Your task to perform on an android device: uninstall "Google Photos" Image 0: 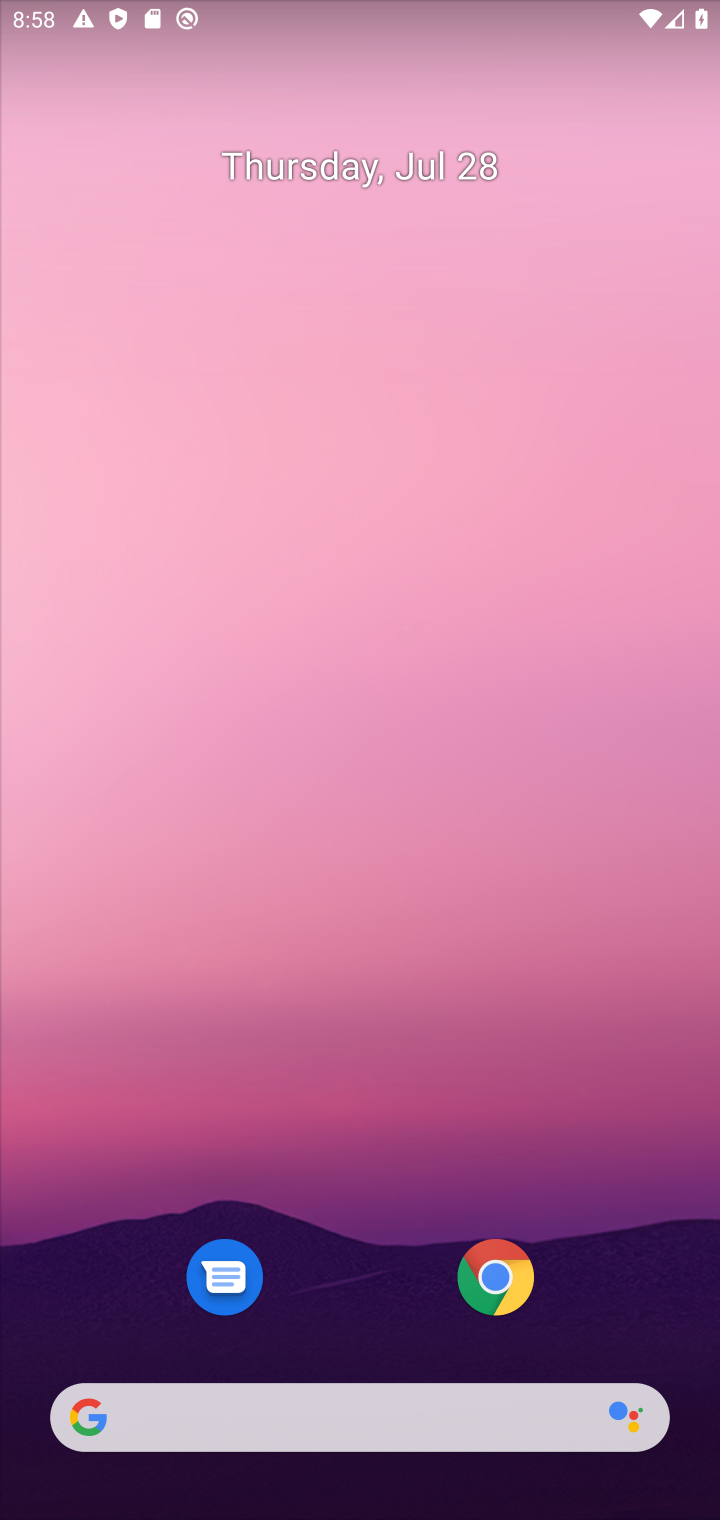
Step 0: drag from (357, 1488) to (349, 656)
Your task to perform on an android device: uninstall "Google Photos" Image 1: 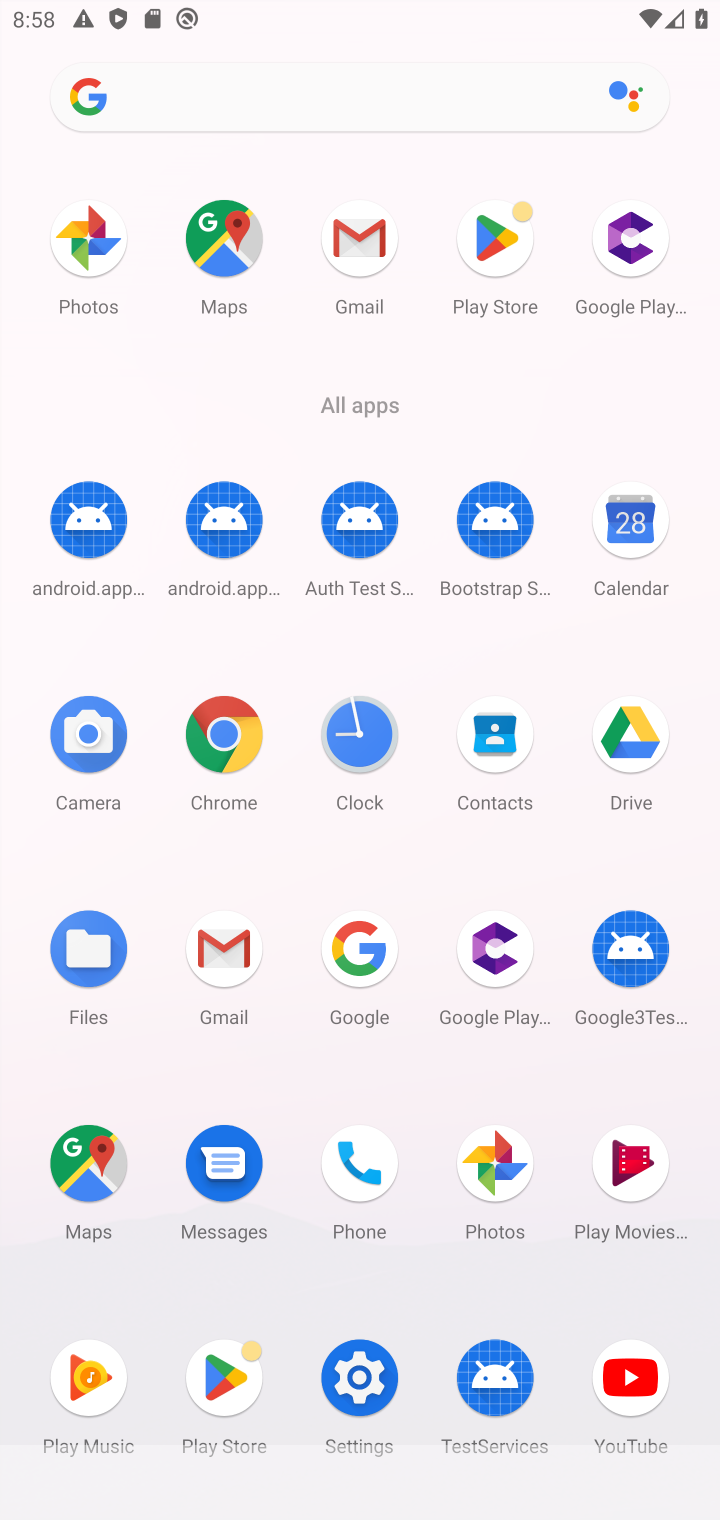
Step 1: click (225, 1387)
Your task to perform on an android device: uninstall "Google Photos" Image 2: 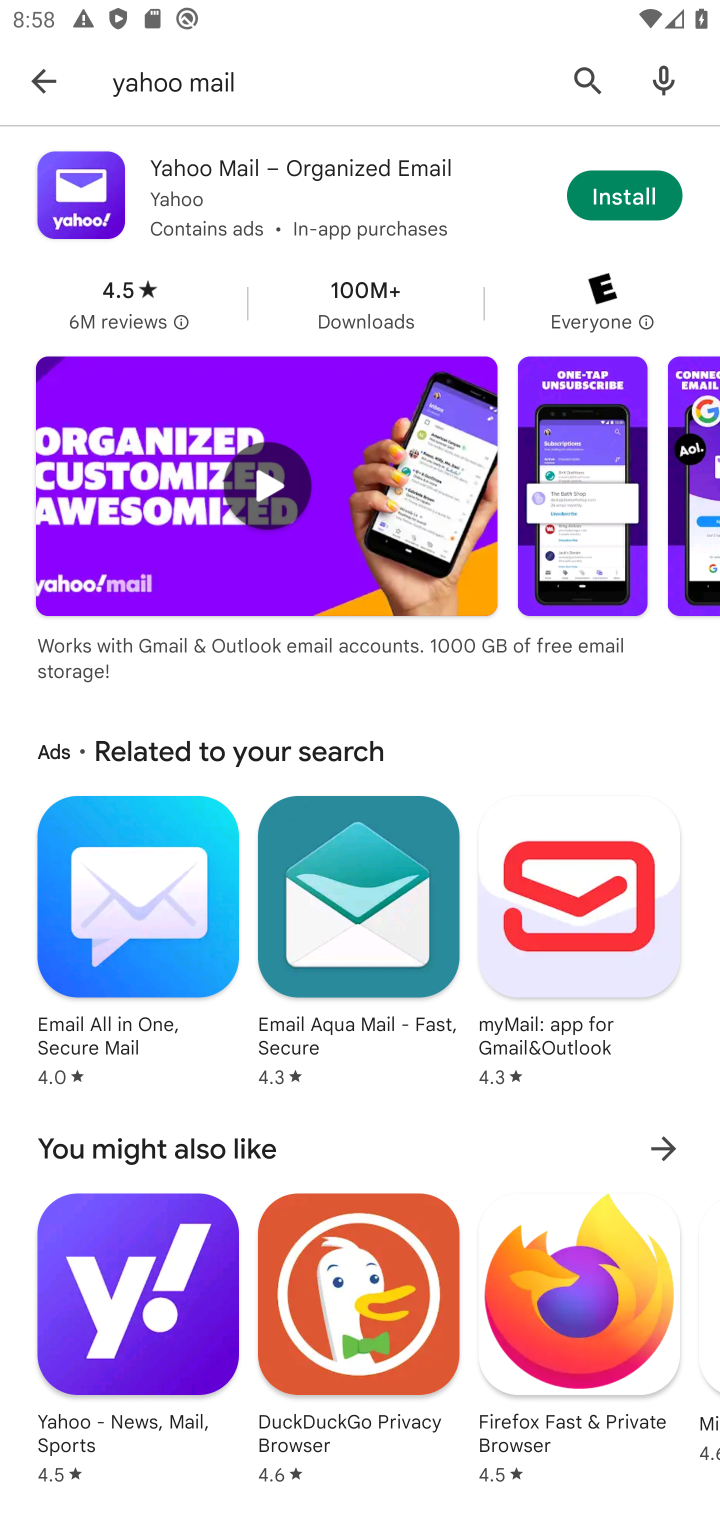
Step 2: click (572, 73)
Your task to perform on an android device: uninstall "Google Photos" Image 3: 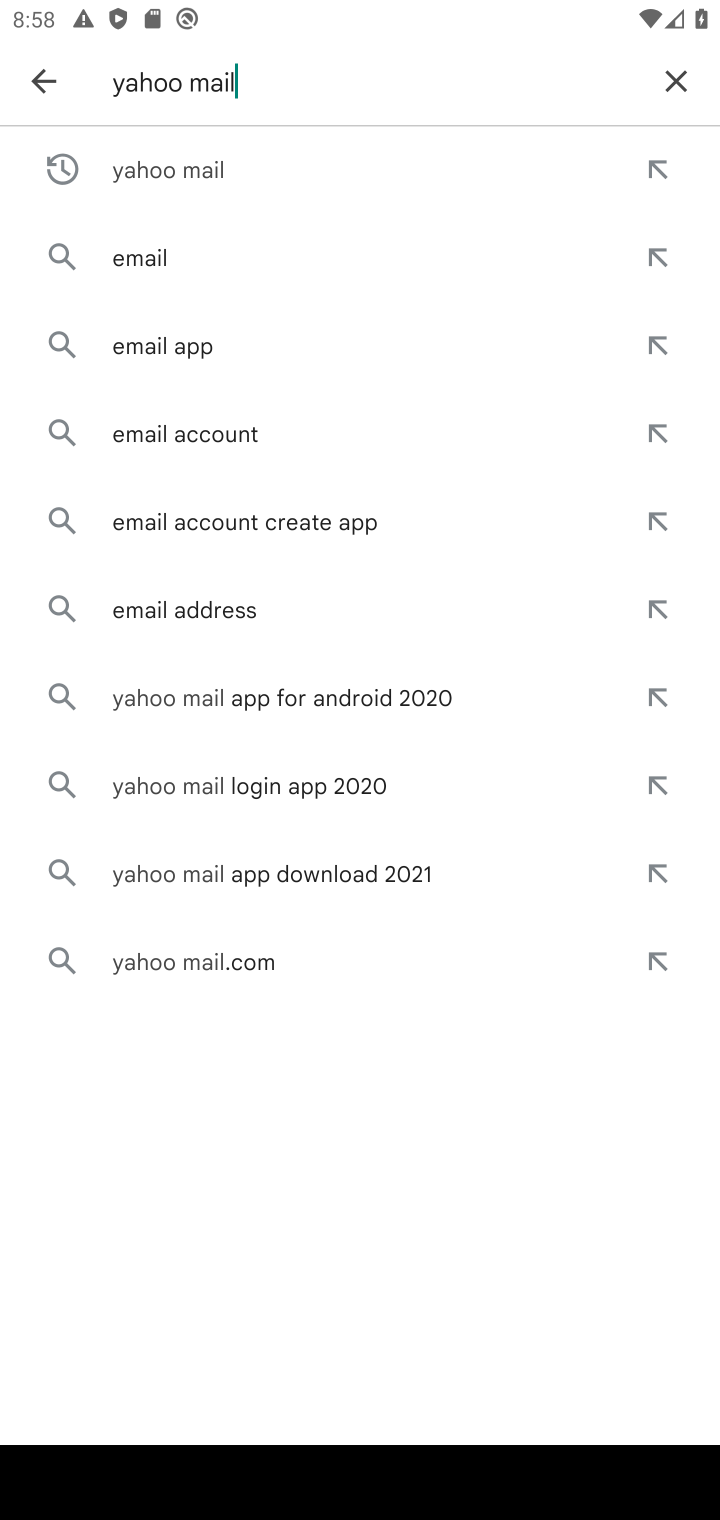
Step 3: click (674, 81)
Your task to perform on an android device: uninstall "Google Photos" Image 4: 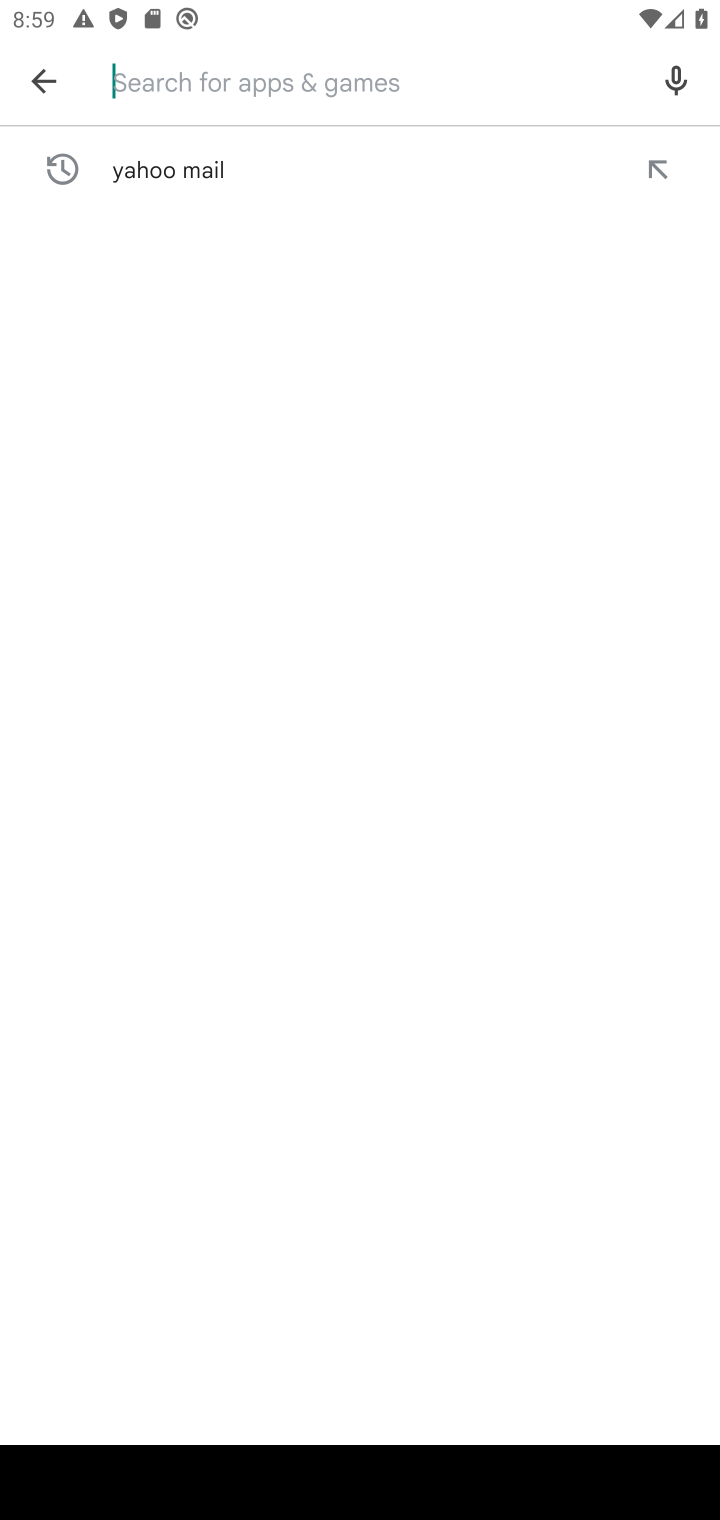
Step 4: type "Google Photo"
Your task to perform on an android device: uninstall "Google Photos" Image 5: 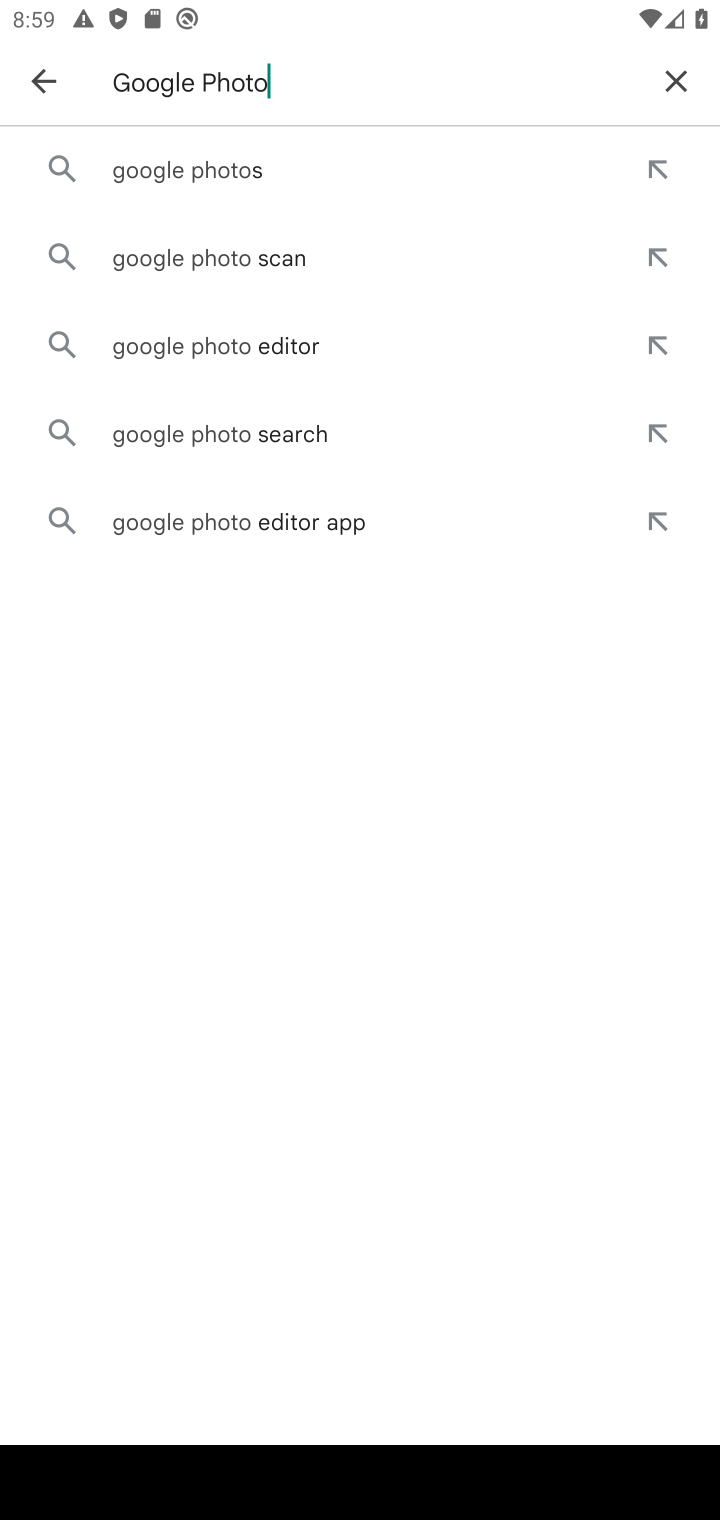
Step 5: click (248, 167)
Your task to perform on an android device: uninstall "Google Photos" Image 6: 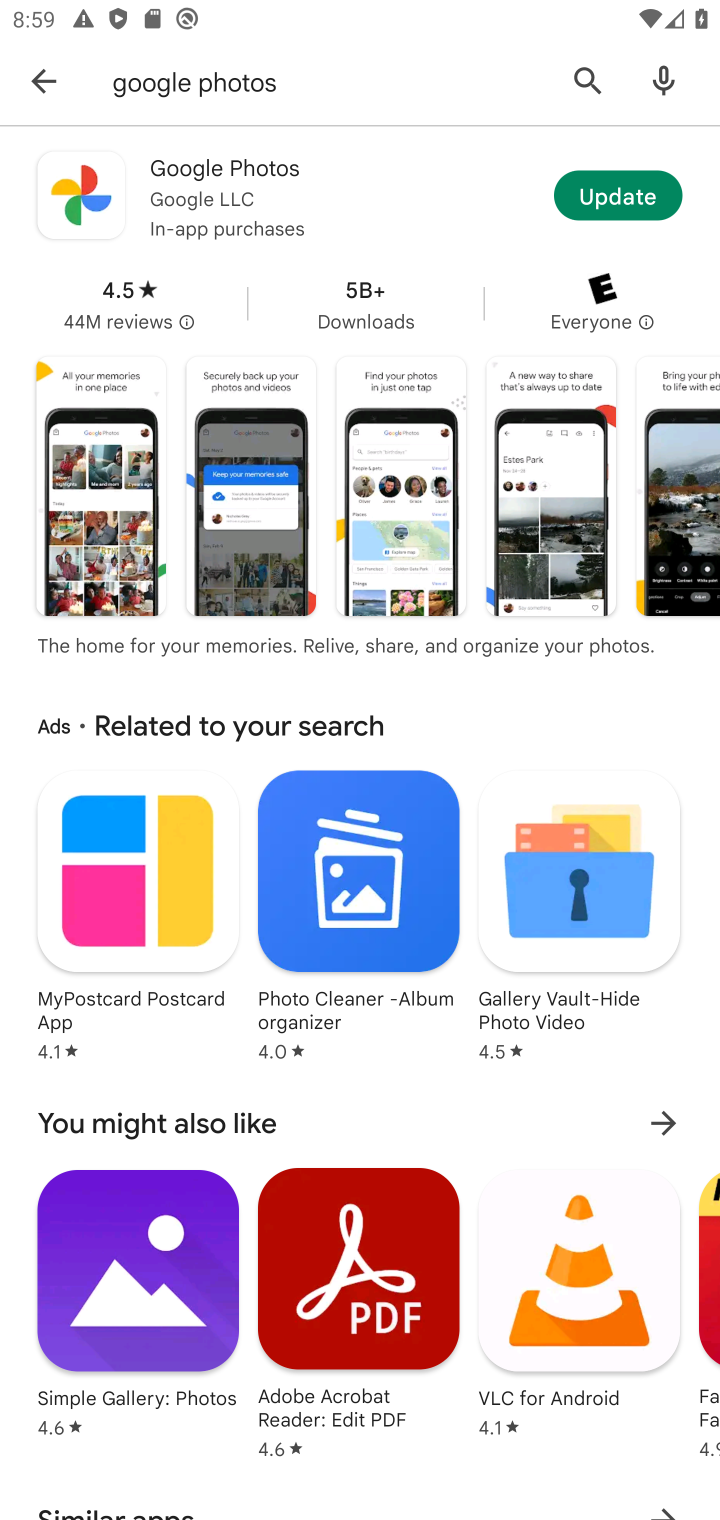
Step 6: click (203, 182)
Your task to perform on an android device: uninstall "Google Photos" Image 7: 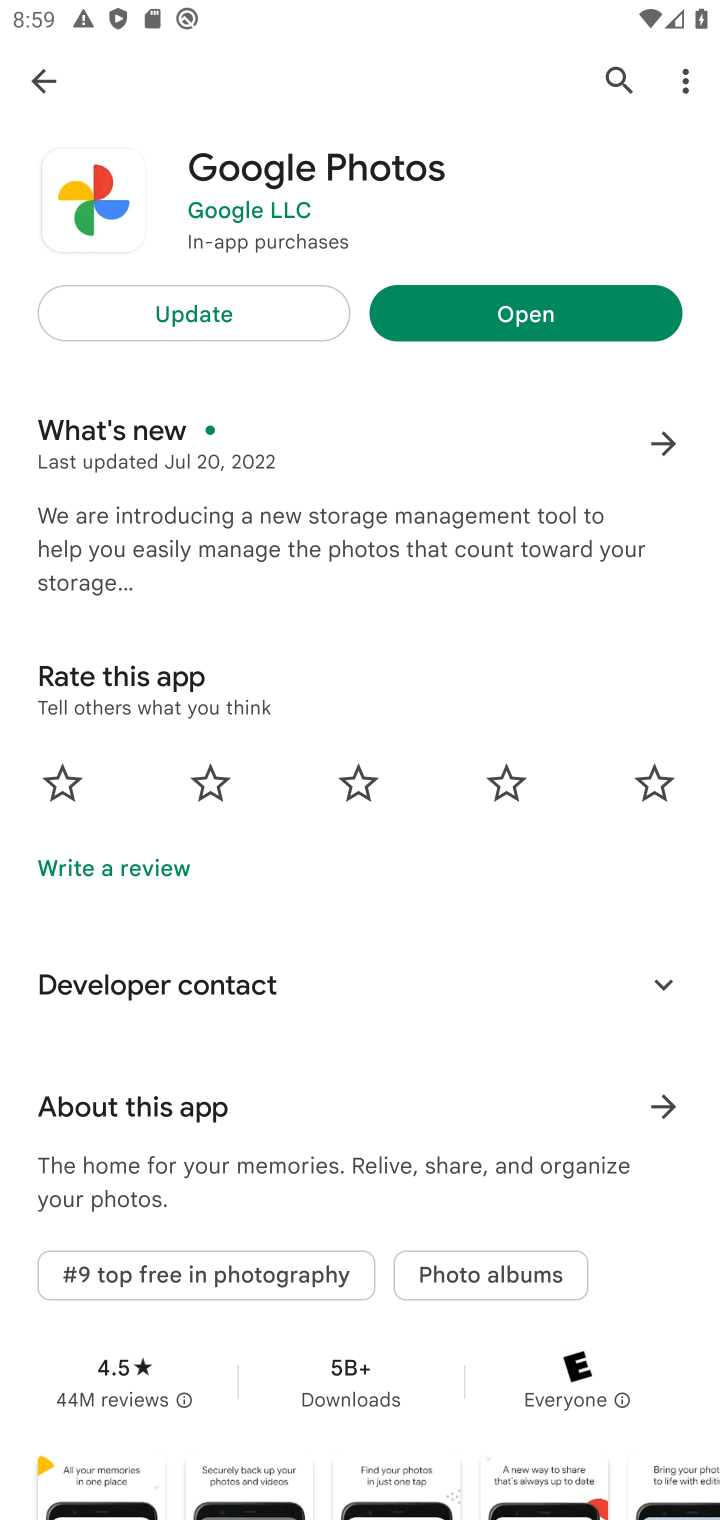
Step 7: task complete